Your task to perform on an android device: Turn on the flashlight Image 0: 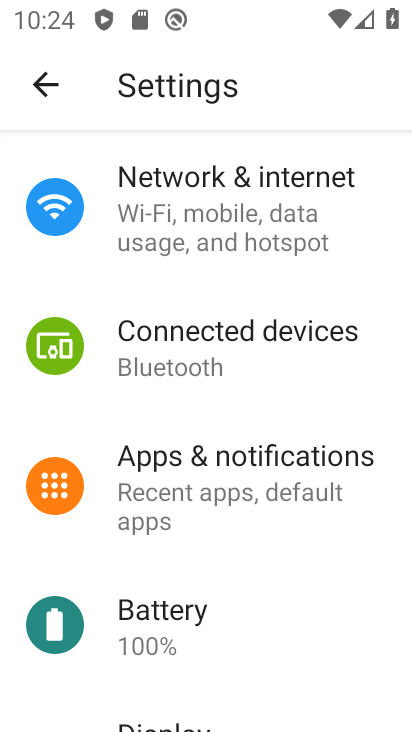
Step 0: click (222, 226)
Your task to perform on an android device: Turn on the flashlight Image 1: 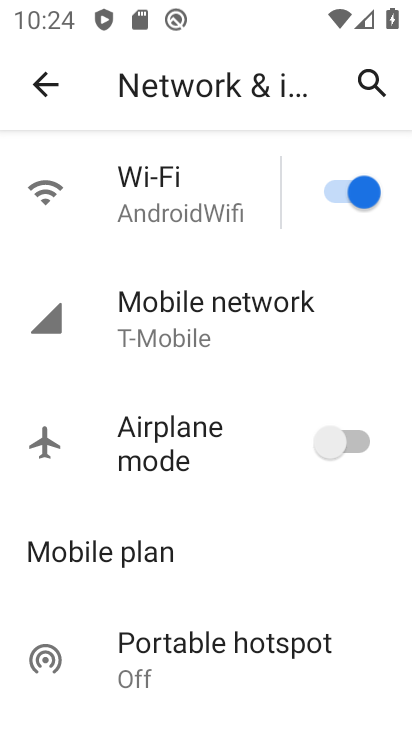
Step 1: task complete